Your task to perform on an android device: open app "Google Pay: Save, Pay, Manage" (install if not already installed) Image 0: 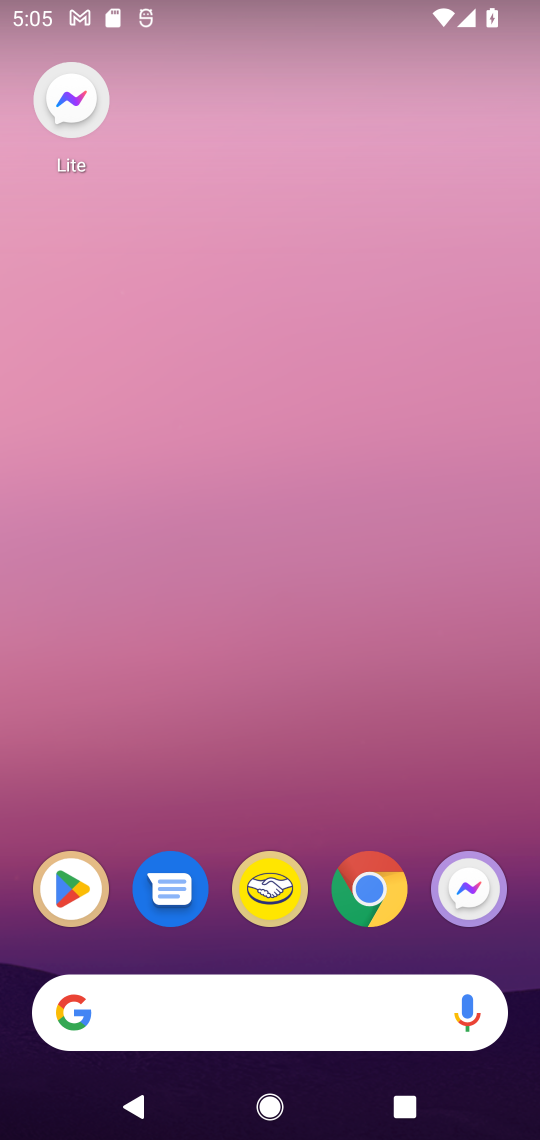
Step 0: drag from (439, 806) to (382, 165)
Your task to perform on an android device: open app "Google Pay: Save, Pay, Manage" (install if not already installed) Image 1: 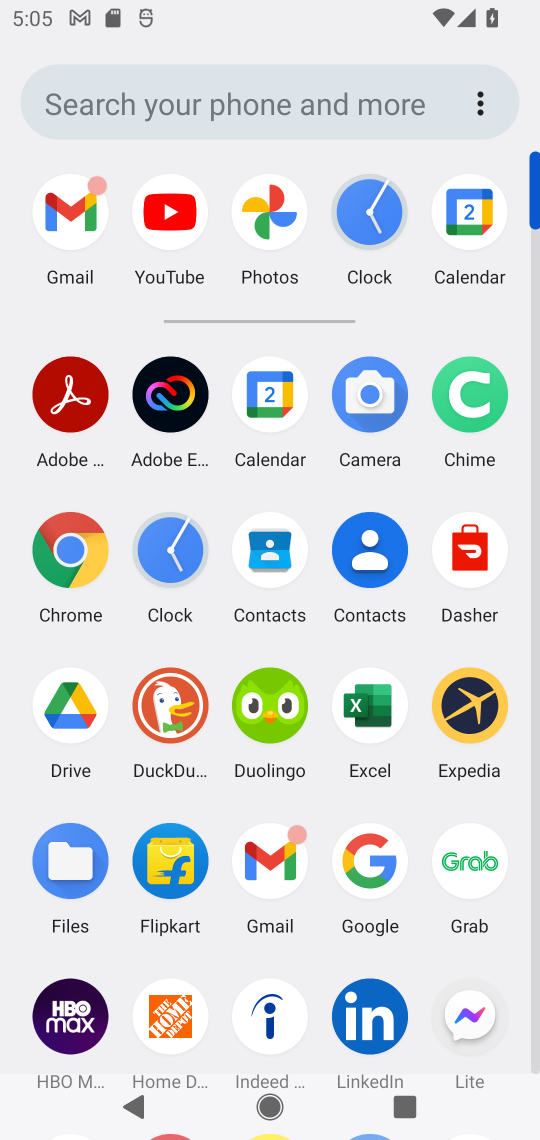
Step 1: drag from (509, 949) to (515, 317)
Your task to perform on an android device: open app "Google Pay: Save, Pay, Manage" (install if not already installed) Image 2: 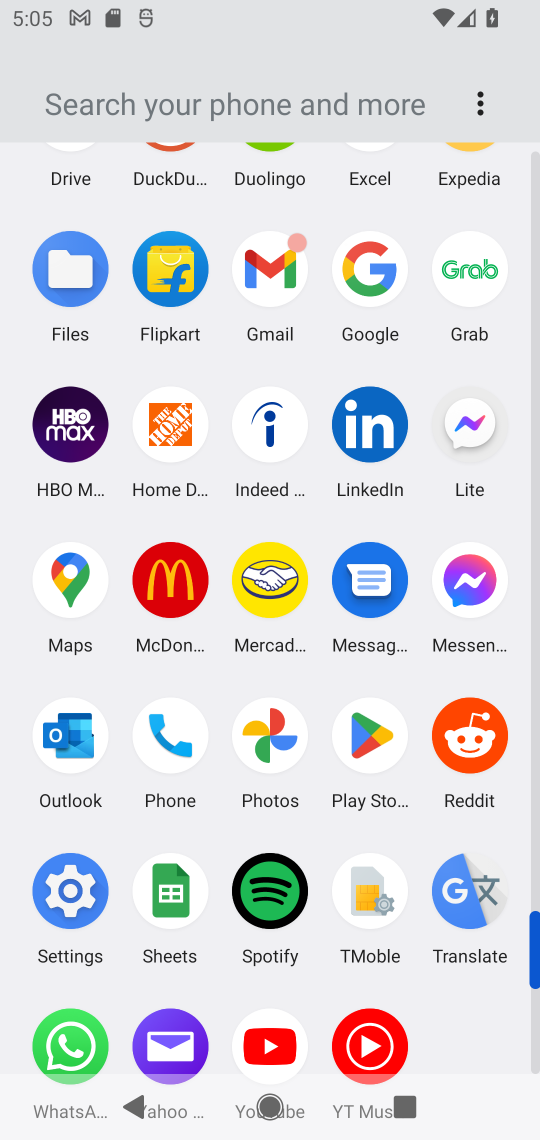
Step 2: click (358, 753)
Your task to perform on an android device: open app "Google Pay: Save, Pay, Manage" (install if not already installed) Image 3: 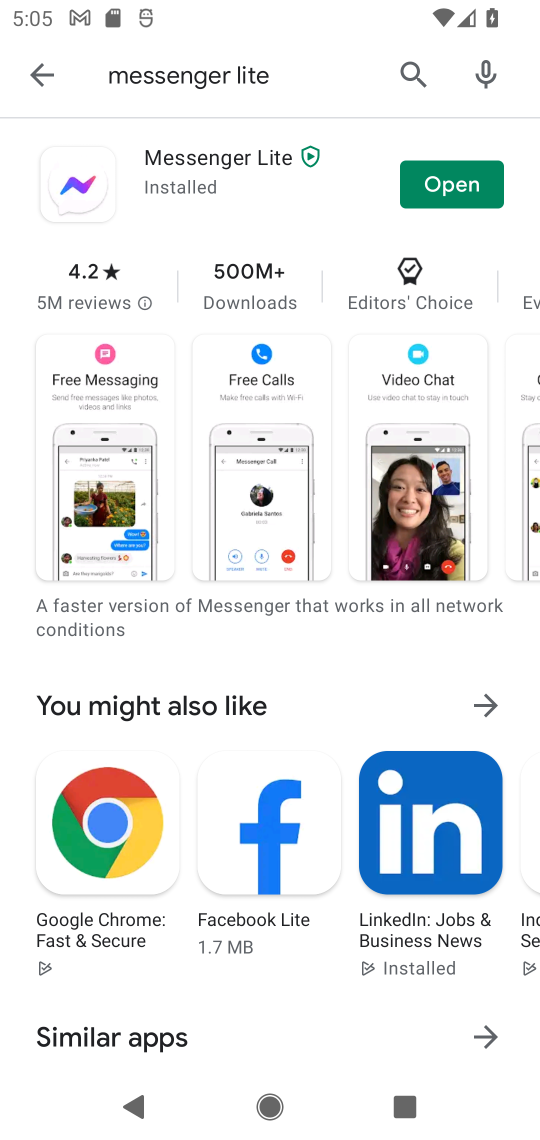
Step 3: click (416, 67)
Your task to perform on an android device: open app "Google Pay: Save, Pay, Manage" (install if not already installed) Image 4: 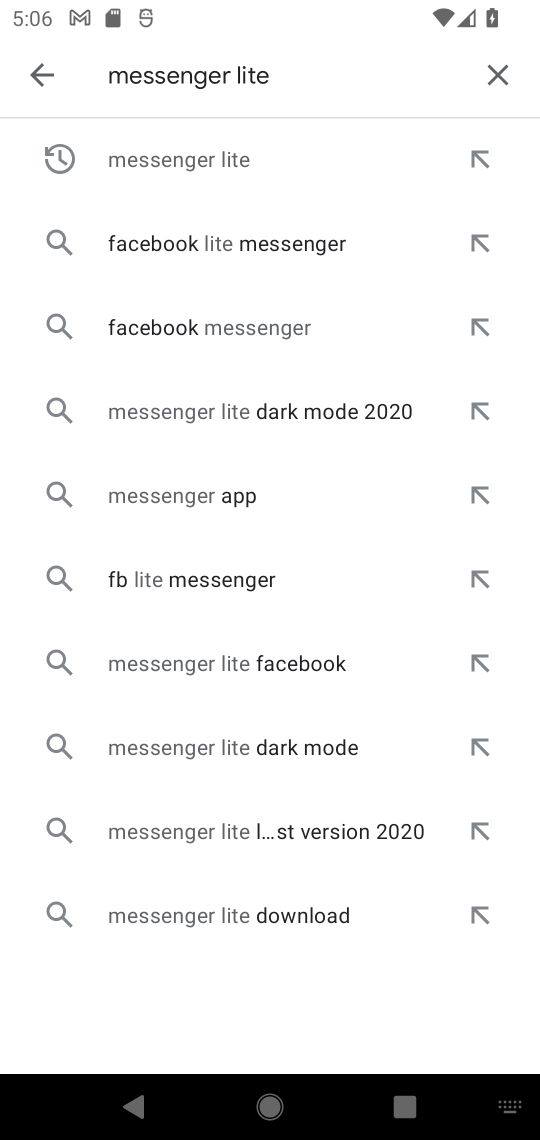
Step 4: click (485, 73)
Your task to perform on an android device: open app "Google Pay: Save, Pay, Manage" (install if not already installed) Image 5: 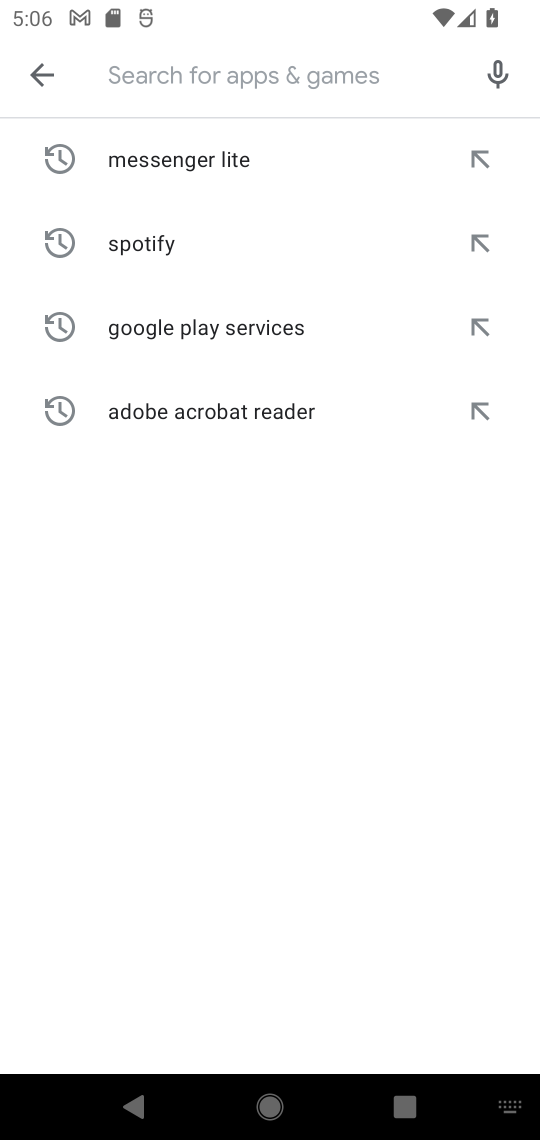
Step 5: click (320, 114)
Your task to perform on an android device: open app "Google Pay: Save, Pay, Manage" (install if not already installed) Image 6: 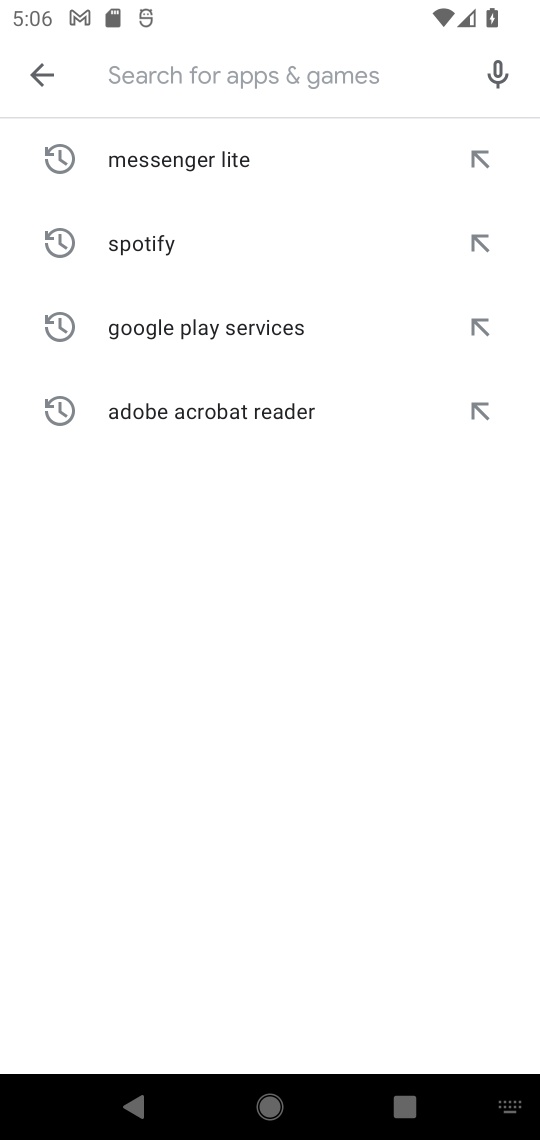
Step 6: type "Google Pay: Save, Pay, Manage"
Your task to perform on an android device: open app "Google Pay: Save, Pay, Manage" (install if not already installed) Image 7: 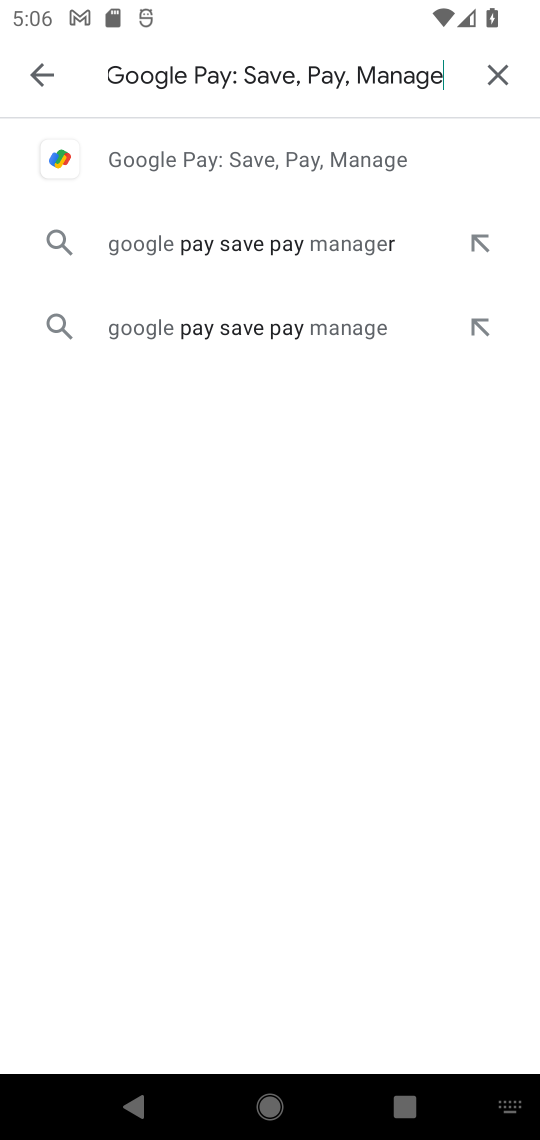
Step 7: click (305, 164)
Your task to perform on an android device: open app "Google Pay: Save, Pay, Manage" (install if not already installed) Image 8: 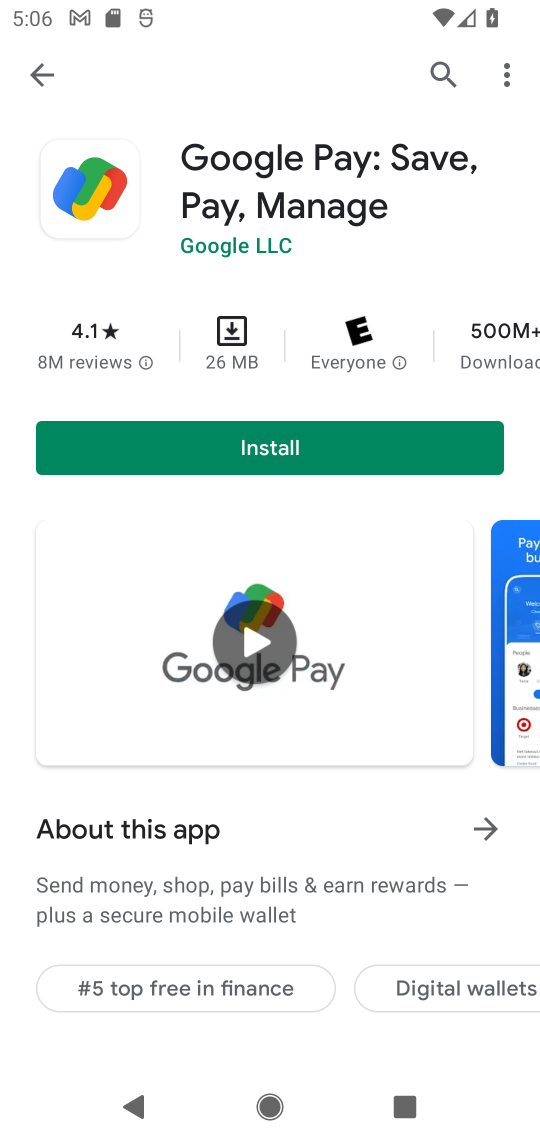
Step 8: click (387, 453)
Your task to perform on an android device: open app "Google Pay: Save, Pay, Manage" (install if not already installed) Image 9: 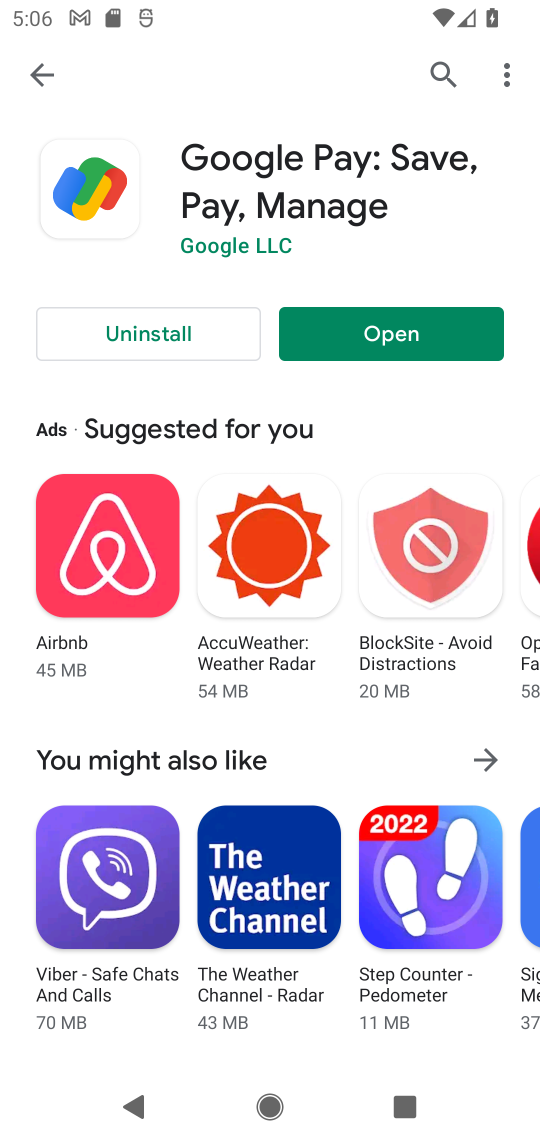
Step 9: click (418, 343)
Your task to perform on an android device: open app "Google Pay: Save, Pay, Manage" (install if not already installed) Image 10: 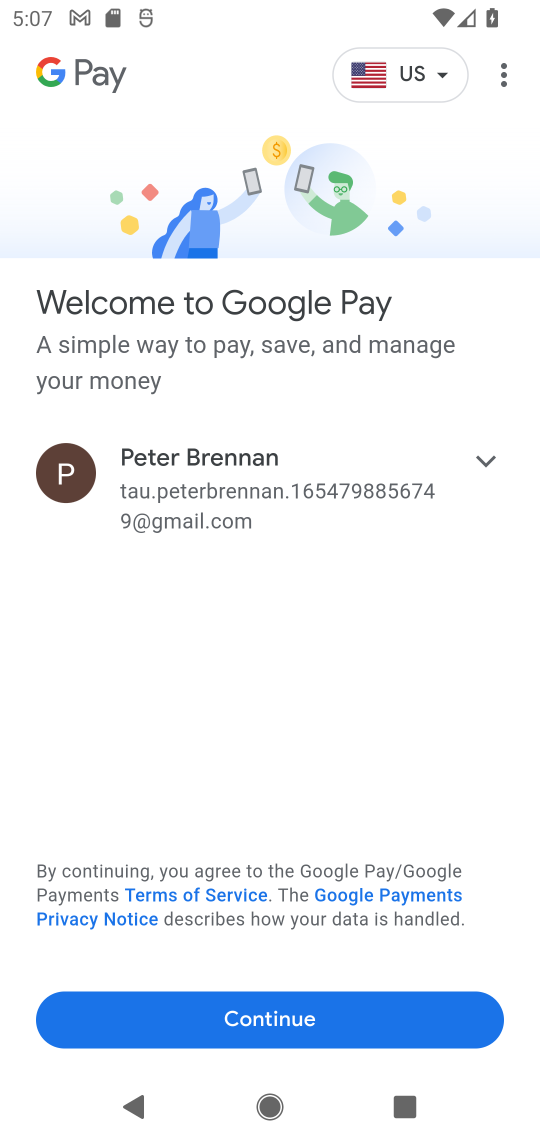
Step 10: task complete